Your task to perform on an android device: check the backup settings in the google photos Image 0: 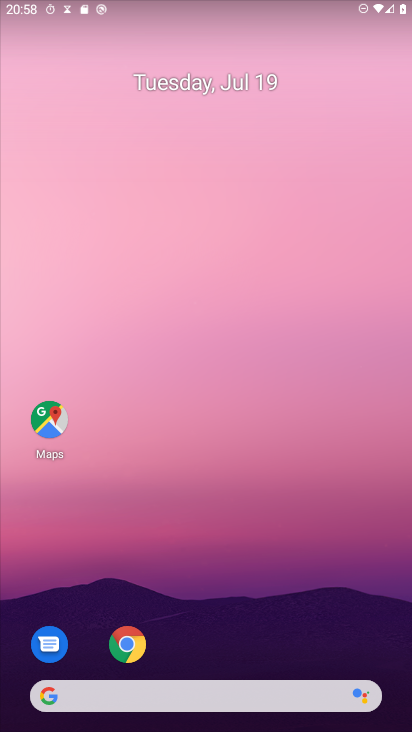
Step 0: drag from (37, 698) to (219, 2)
Your task to perform on an android device: check the backup settings in the google photos Image 1: 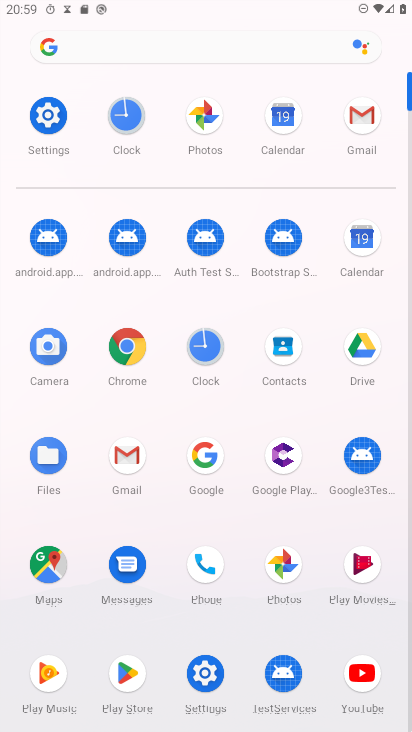
Step 1: click (285, 560)
Your task to perform on an android device: check the backup settings in the google photos Image 2: 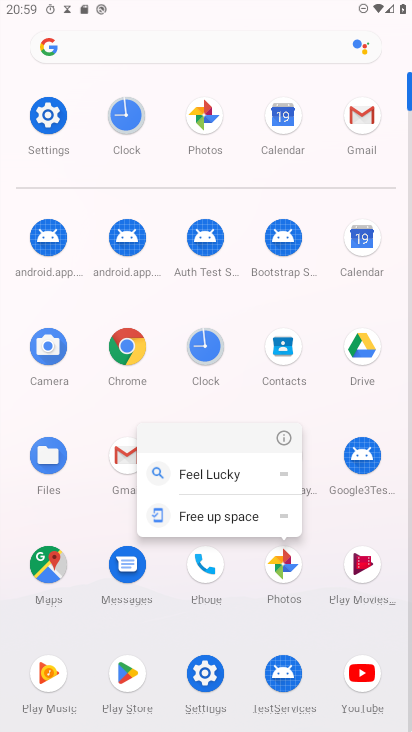
Step 2: click (289, 566)
Your task to perform on an android device: check the backup settings in the google photos Image 3: 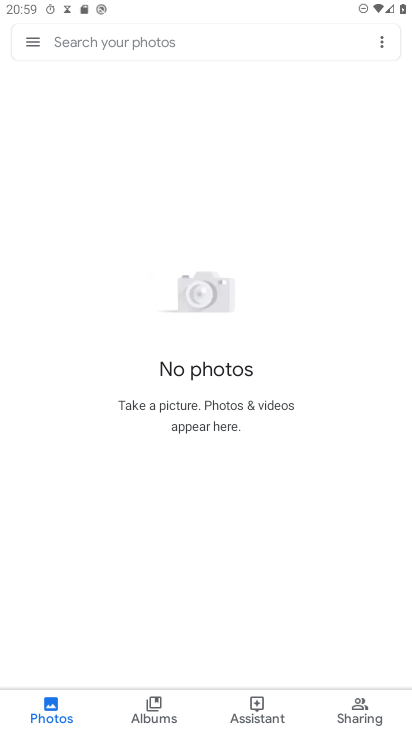
Step 3: click (35, 44)
Your task to perform on an android device: check the backup settings in the google photos Image 4: 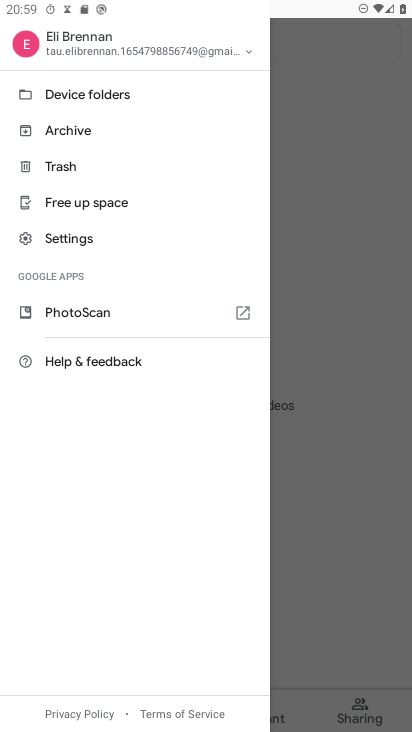
Step 4: click (80, 244)
Your task to perform on an android device: check the backup settings in the google photos Image 5: 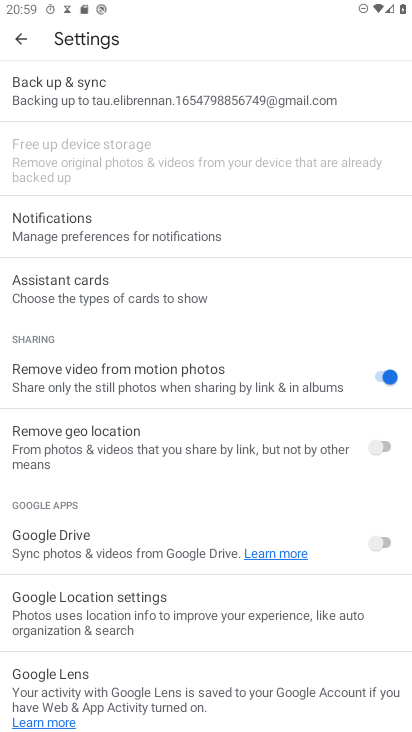
Step 5: click (96, 74)
Your task to perform on an android device: check the backup settings in the google photos Image 6: 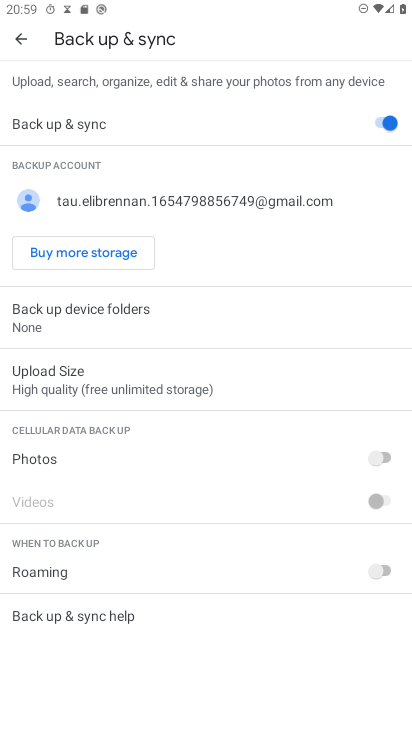
Step 6: task complete